Your task to perform on an android device: check out phone information Image 0: 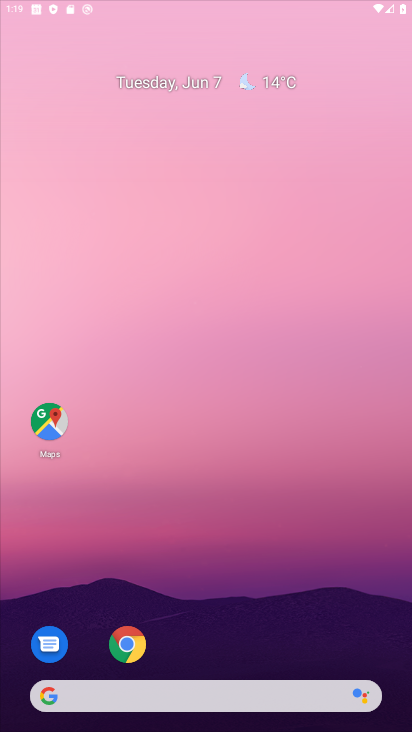
Step 0: drag from (226, 644) to (169, 107)
Your task to perform on an android device: check out phone information Image 1: 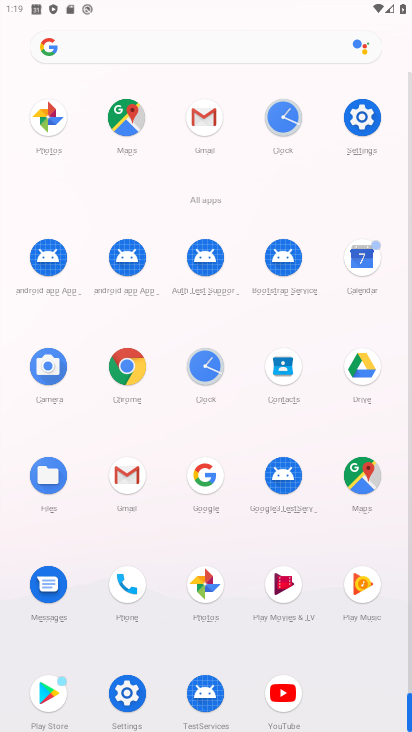
Step 1: drag from (280, 559) to (247, 109)
Your task to perform on an android device: check out phone information Image 2: 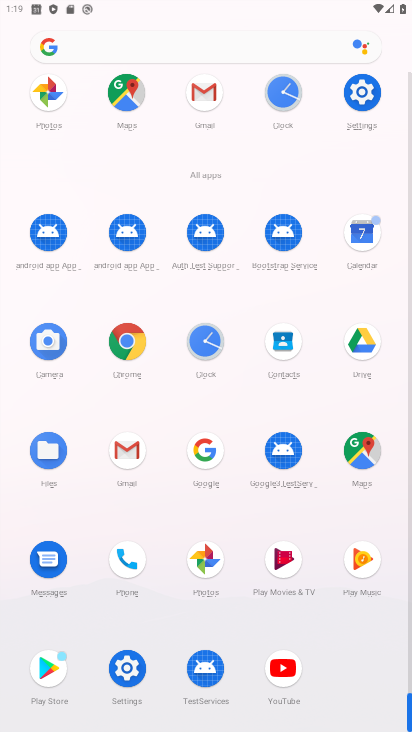
Step 2: click (120, 668)
Your task to perform on an android device: check out phone information Image 3: 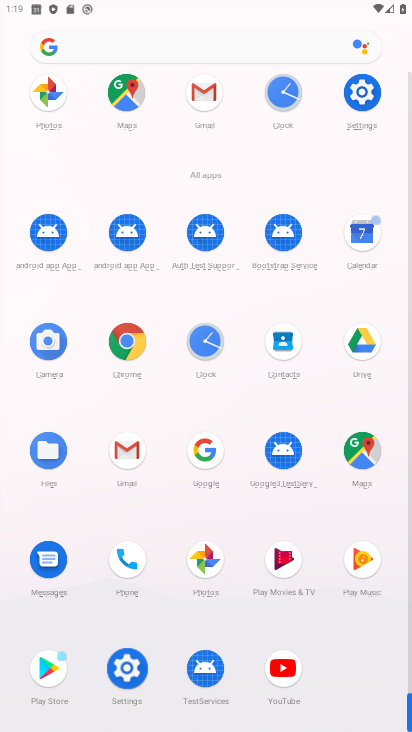
Step 3: click (120, 668)
Your task to perform on an android device: check out phone information Image 4: 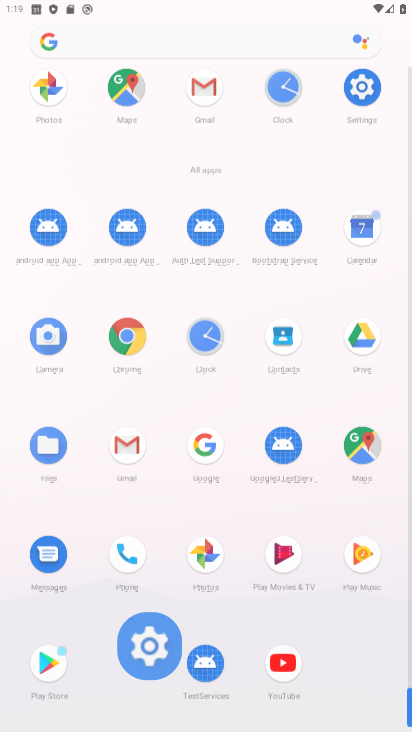
Step 4: click (122, 668)
Your task to perform on an android device: check out phone information Image 5: 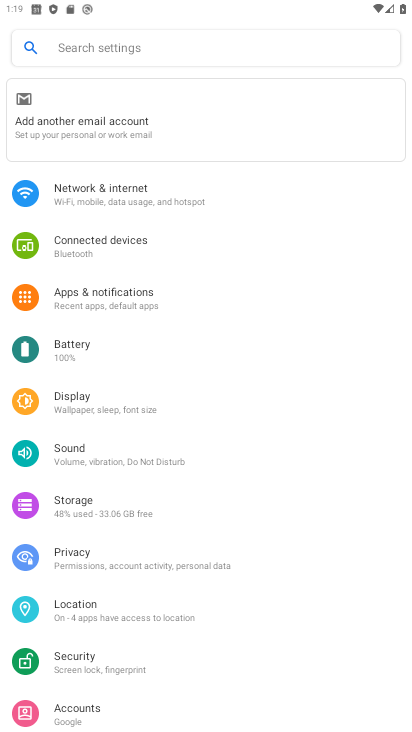
Step 5: click (153, 651)
Your task to perform on an android device: check out phone information Image 6: 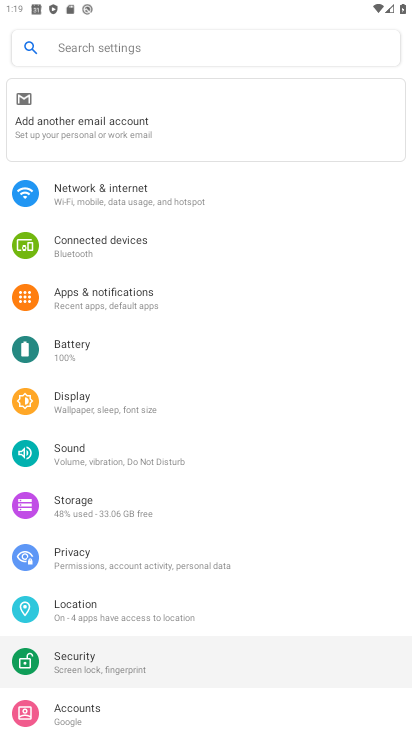
Step 6: click (145, 645)
Your task to perform on an android device: check out phone information Image 7: 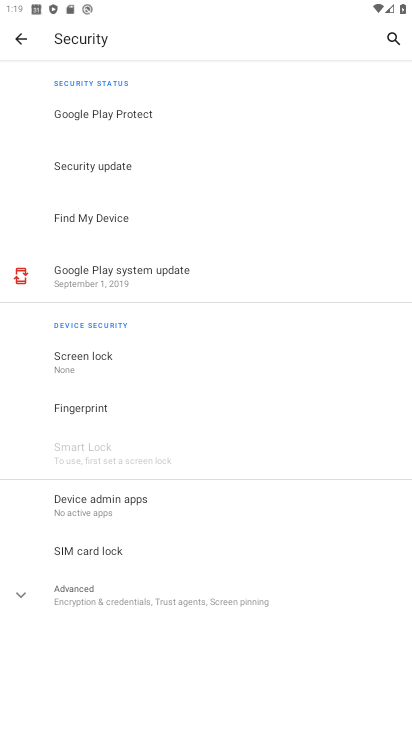
Step 7: click (147, 634)
Your task to perform on an android device: check out phone information Image 8: 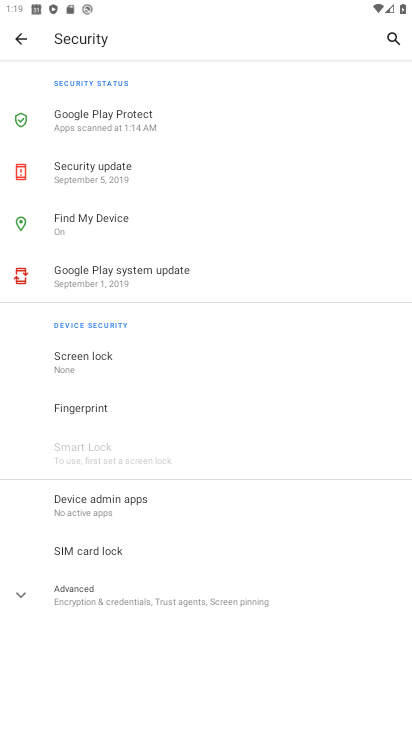
Step 8: click (22, 48)
Your task to perform on an android device: check out phone information Image 9: 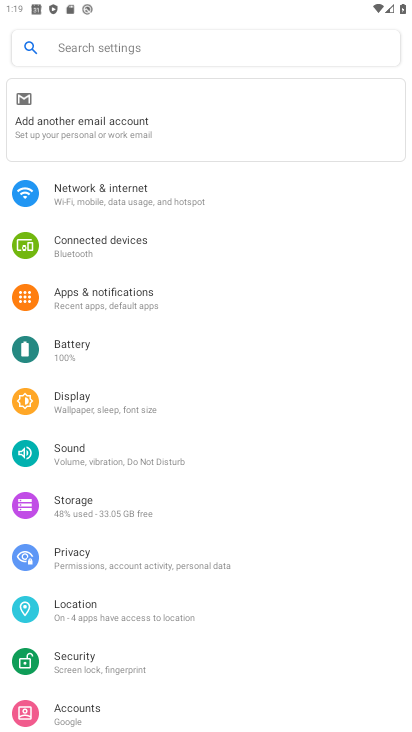
Step 9: drag from (142, 632) to (143, 130)
Your task to perform on an android device: check out phone information Image 10: 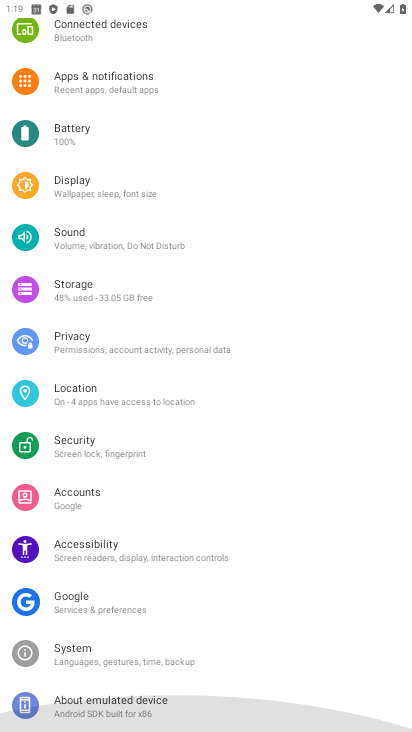
Step 10: drag from (118, 443) to (72, 132)
Your task to perform on an android device: check out phone information Image 11: 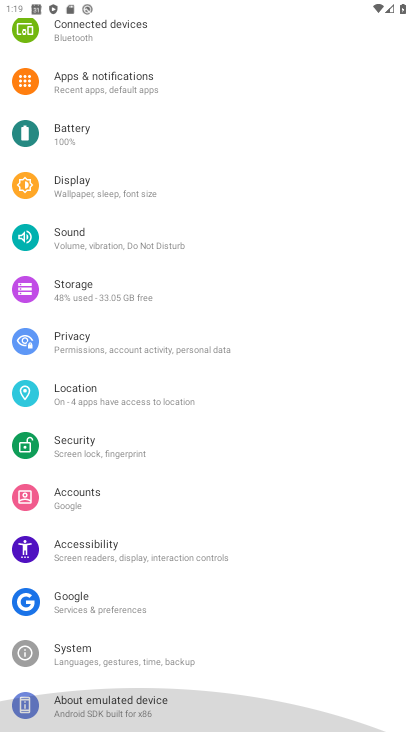
Step 11: drag from (106, 376) to (80, 116)
Your task to perform on an android device: check out phone information Image 12: 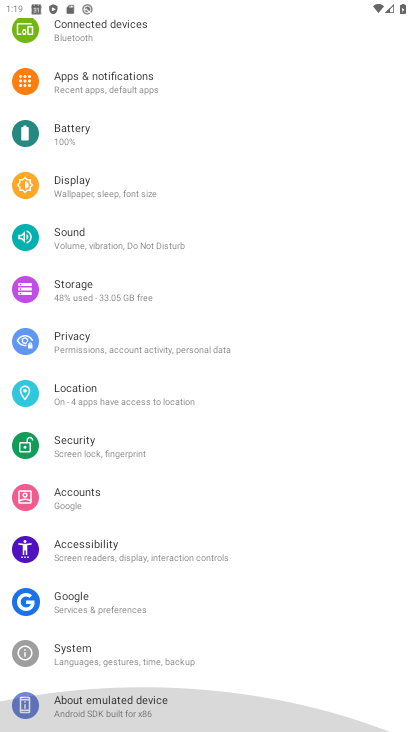
Step 12: drag from (116, 446) to (116, 179)
Your task to perform on an android device: check out phone information Image 13: 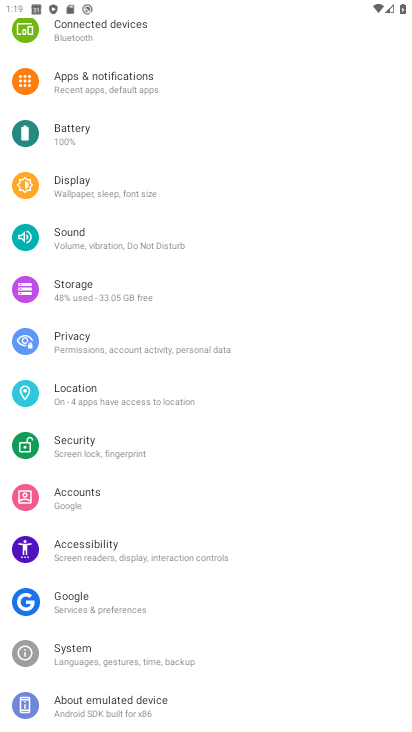
Step 13: click (91, 702)
Your task to perform on an android device: check out phone information Image 14: 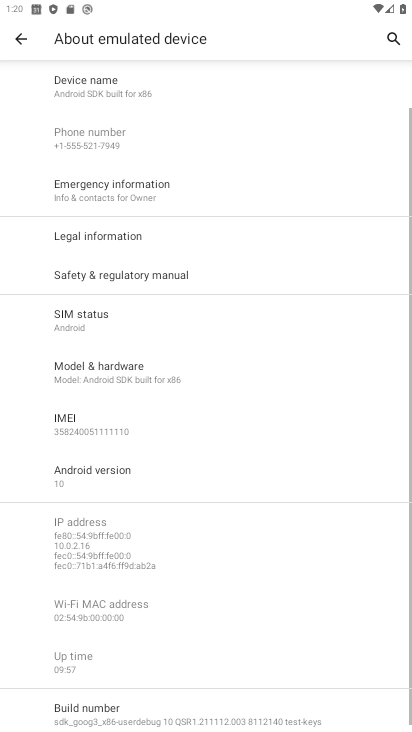
Step 14: task complete